Your task to perform on an android device: Open the map Image 0: 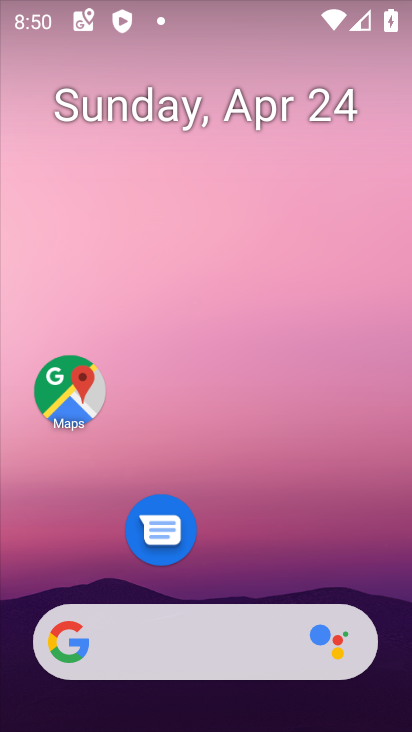
Step 0: click (65, 394)
Your task to perform on an android device: Open the map Image 1: 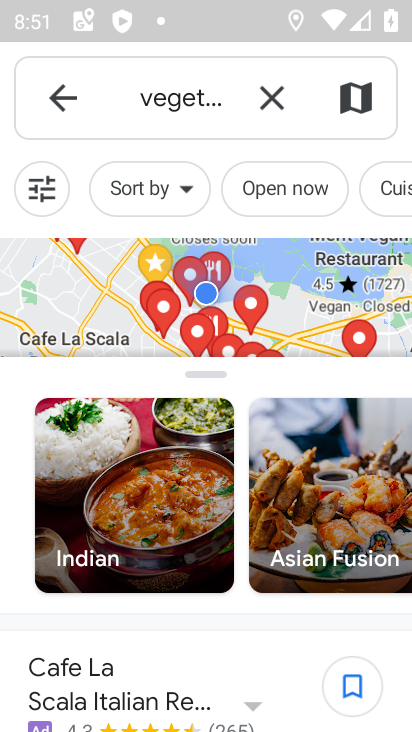
Step 1: task complete